Your task to perform on an android device: Search for pizza restaurants on Maps Image 0: 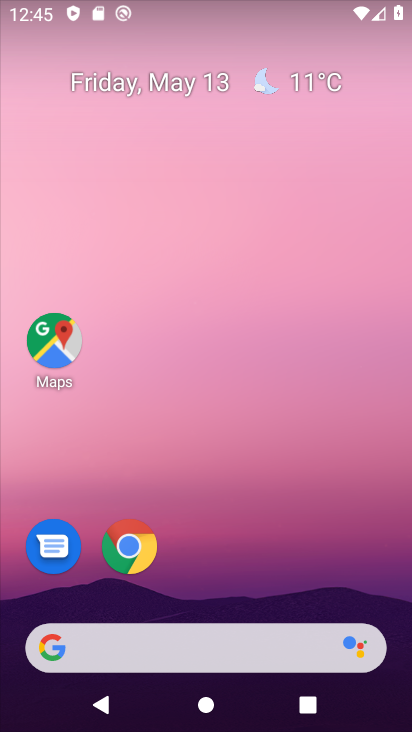
Step 0: drag from (245, 555) to (247, 77)
Your task to perform on an android device: Search for pizza restaurants on Maps Image 1: 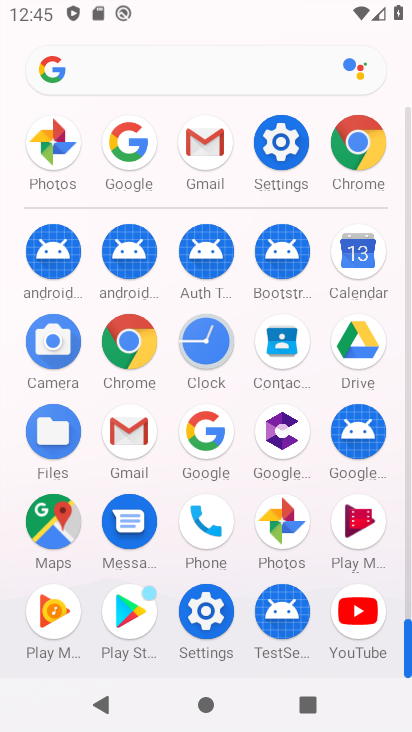
Step 1: click (55, 537)
Your task to perform on an android device: Search for pizza restaurants on Maps Image 2: 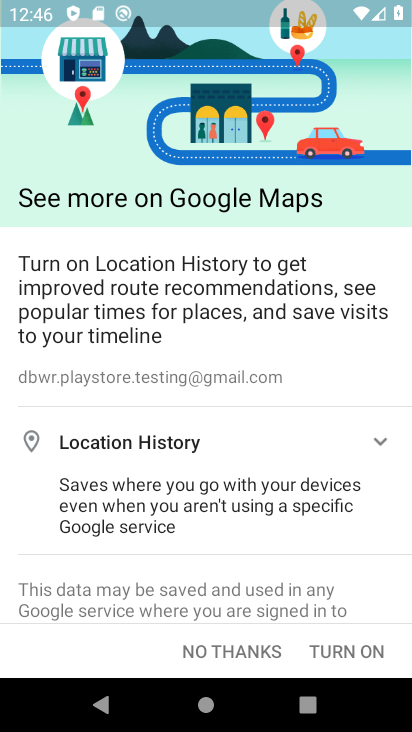
Step 2: click (346, 644)
Your task to perform on an android device: Search for pizza restaurants on Maps Image 3: 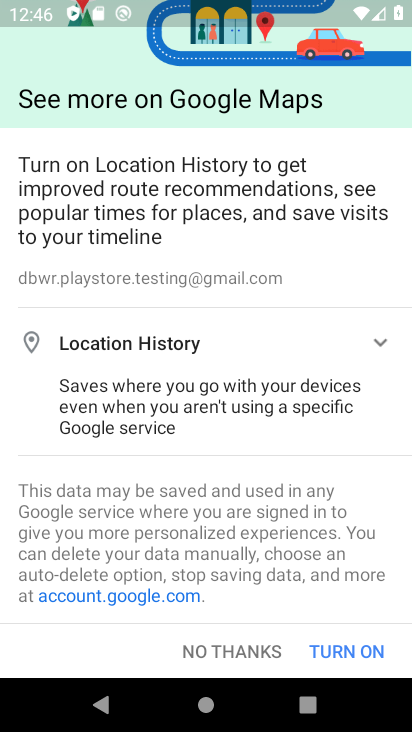
Step 3: click (342, 655)
Your task to perform on an android device: Search for pizza restaurants on Maps Image 4: 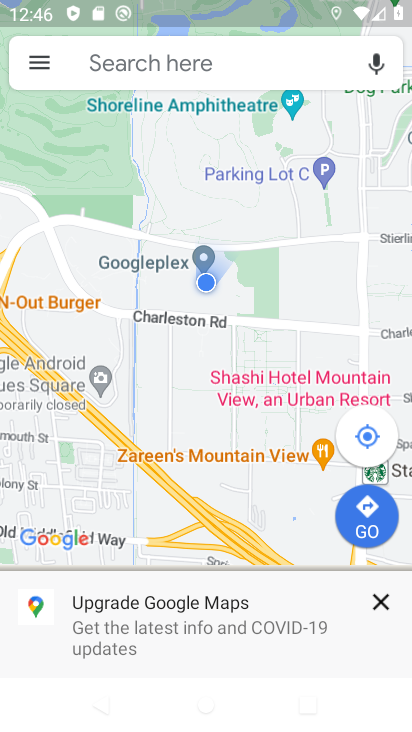
Step 4: click (236, 56)
Your task to perform on an android device: Search for pizza restaurants on Maps Image 5: 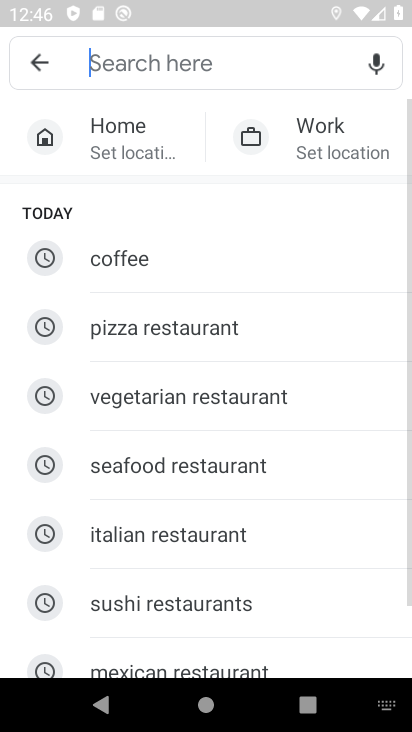
Step 5: click (186, 342)
Your task to perform on an android device: Search for pizza restaurants on Maps Image 6: 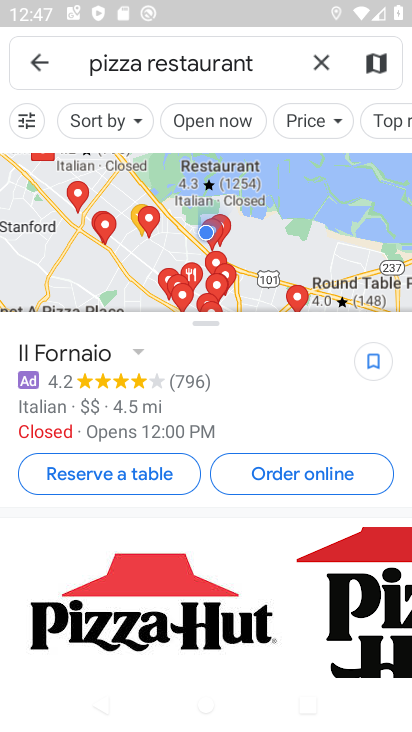
Step 6: task complete